Your task to perform on an android device: Show me recent news Image 0: 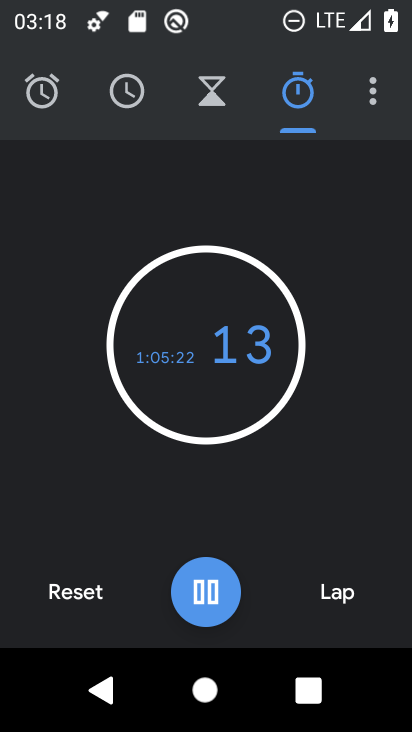
Step 0: press home button
Your task to perform on an android device: Show me recent news Image 1: 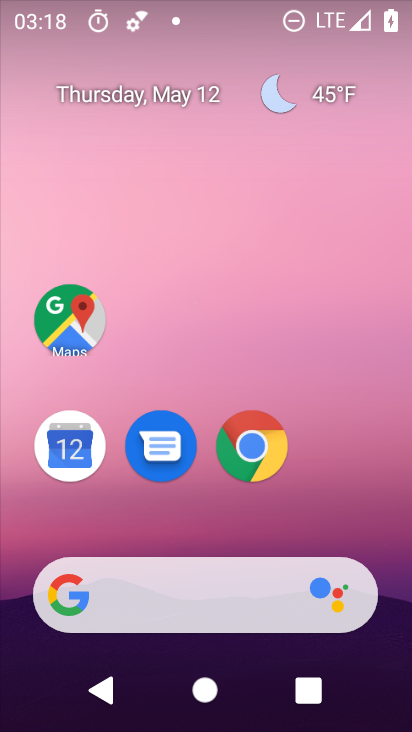
Step 1: drag from (249, 527) to (274, 184)
Your task to perform on an android device: Show me recent news Image 2: 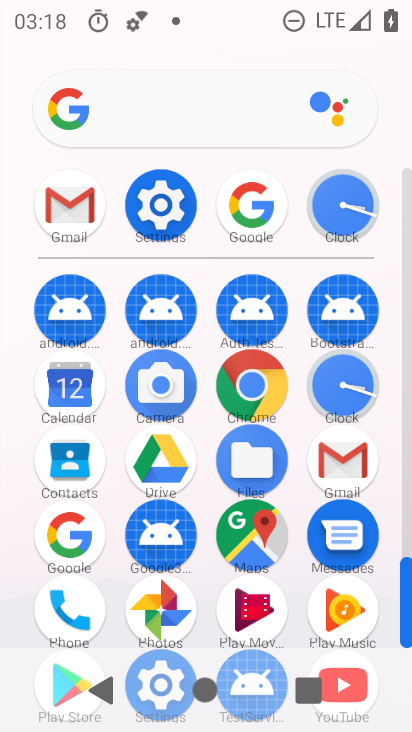
Step 2: click (230, 232)
Your task to perform on an android device: Show me recent news Image 3: 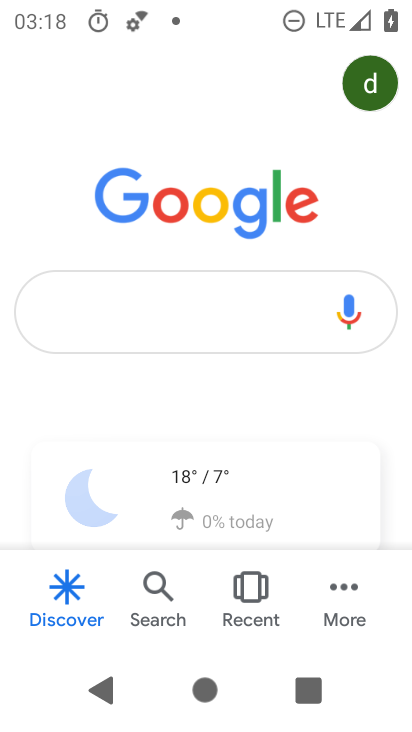
Step 3: click (195, 294)
Your task to perform on an android device: Show me recent news Image 4: 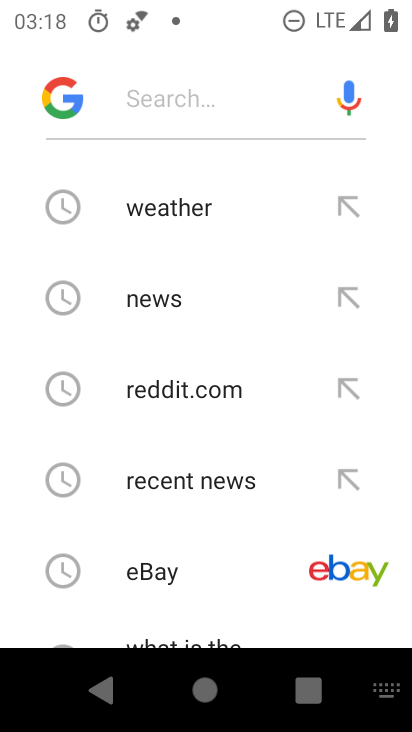
Step 4: type "recent news"
Your task to perform on an android device: Show me recent news Image 5: 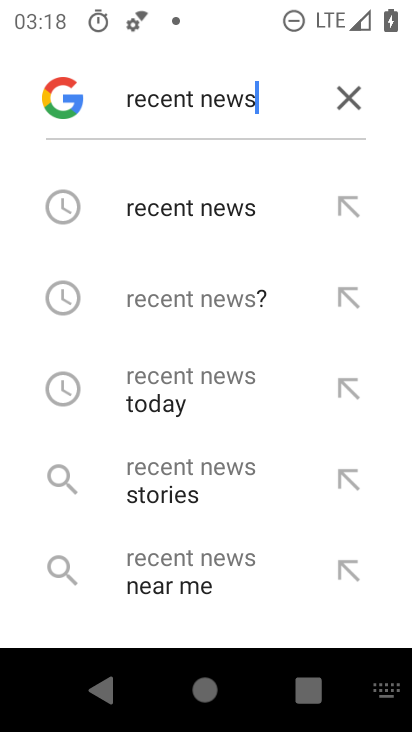
Step 5: click (188, 216)
Your task to perform on an android device: Show me recent news Image 6: 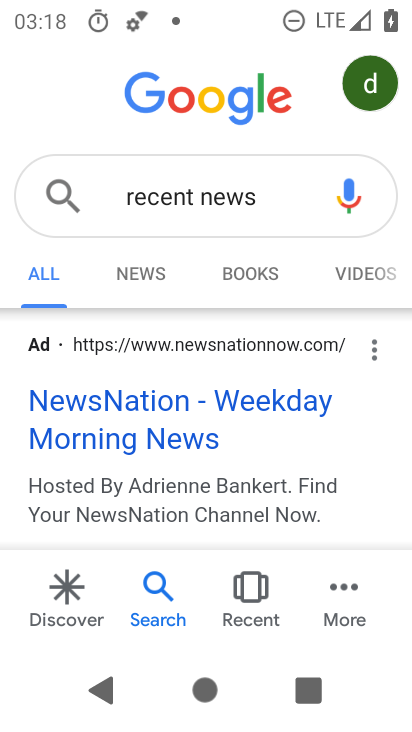
Step 6: click (144, 266)
Your task to perform on an android device: Show me recent news Image 7: 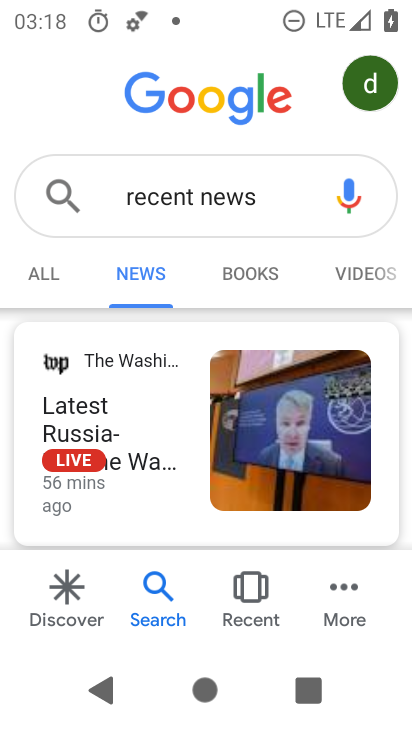
Step 7: task complete